Your task to perform on an android device: open a new tab in the chrome app Image 0: 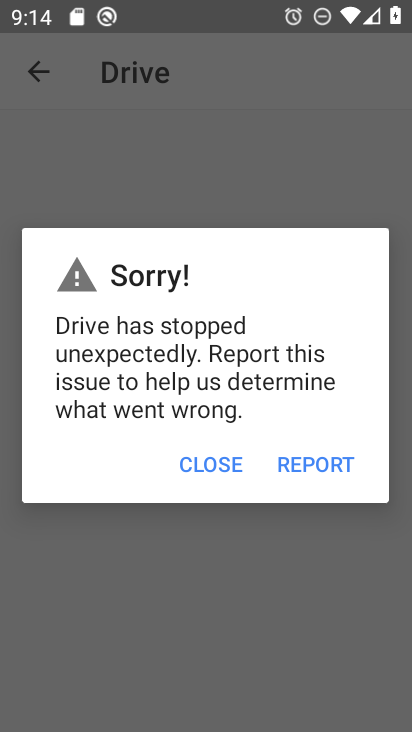
Step 0: press home button
Your task to perform on an android device: open a new tab in the chrome app Image 1: 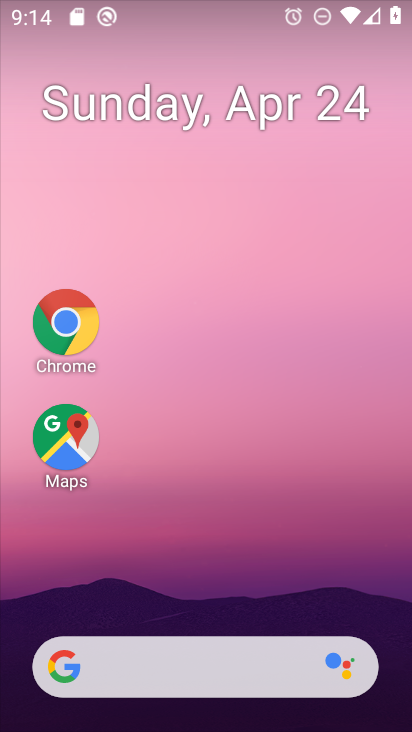
Step 1: click (60, 325)
Your task to perform on an android device: open a new tab in the chrome app Image 2: 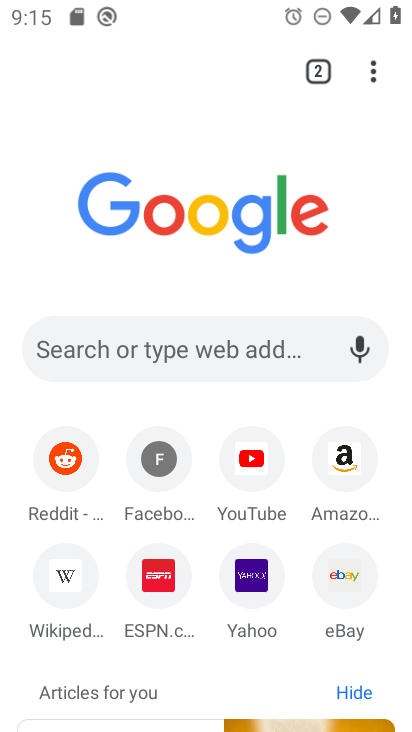
Step 2: click (370, 77)
Your task to perform on an android device: open a new tab in the chrome app Image 3: 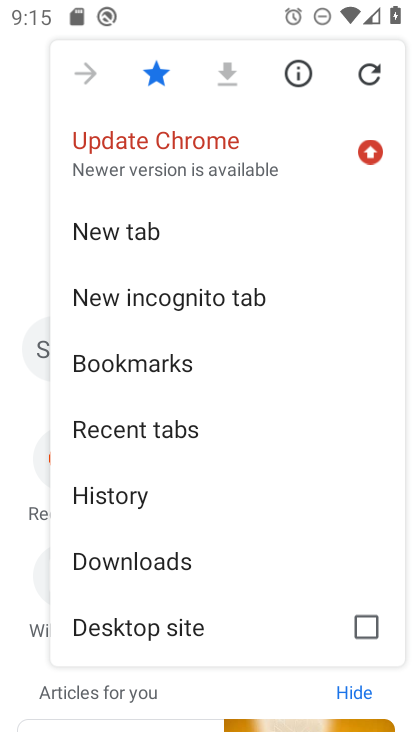
Step 3: click (132, 230)
Your task to perform on an android device: open a new tab in the chrome app Image 4: 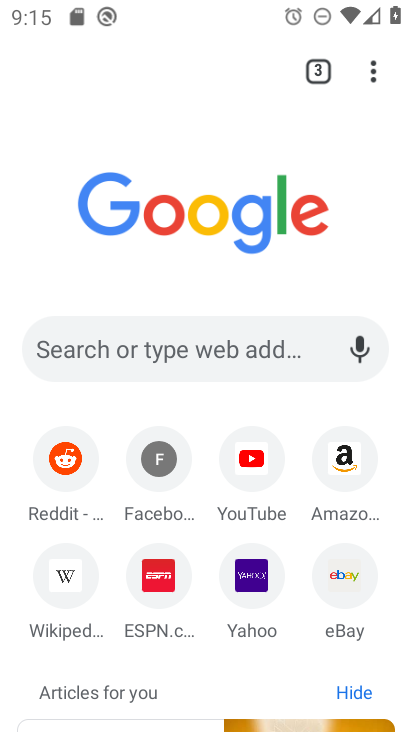
Step 4: task complete